Your task to perform on an android device: uninstall "McDonald's" Image 0: 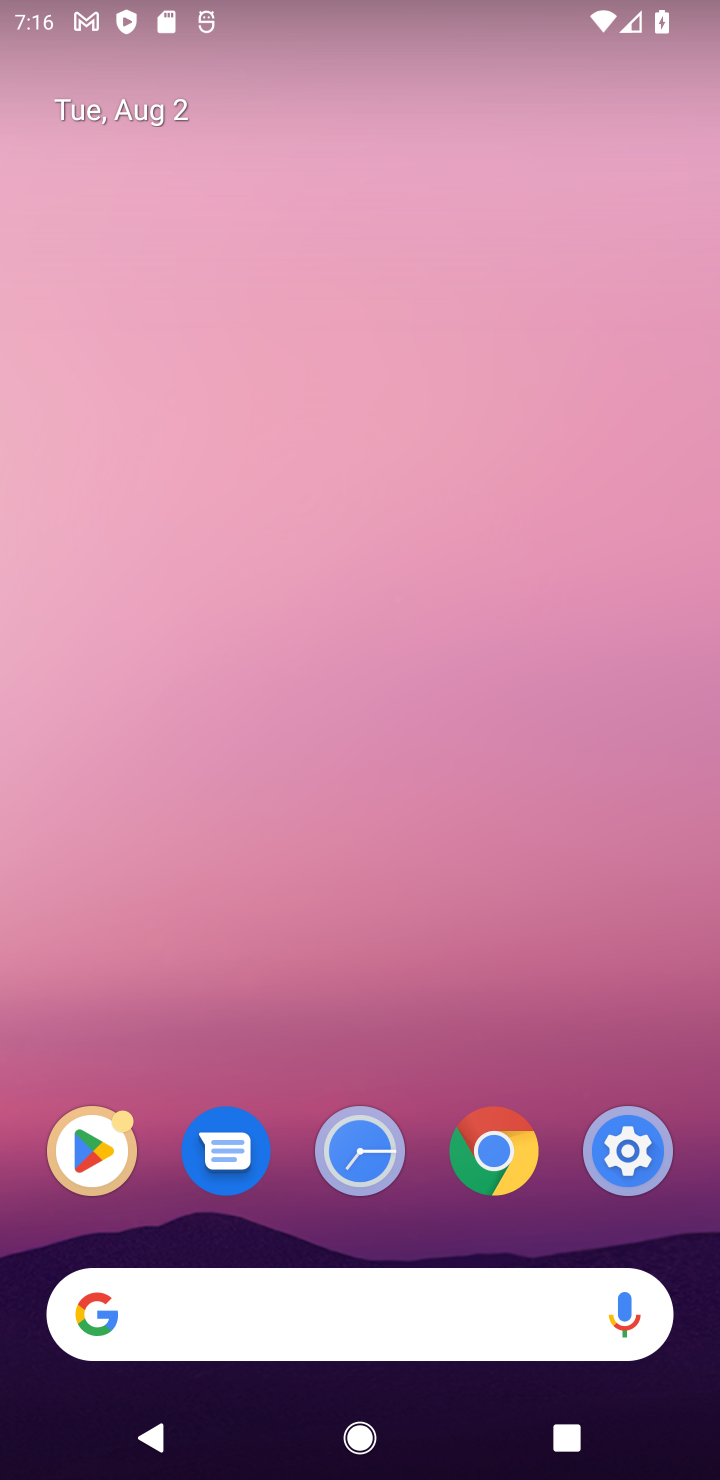
Step 0: click (108, 1145)
Your task to perform on an android device: uninstall "McDonald's" Image 1: 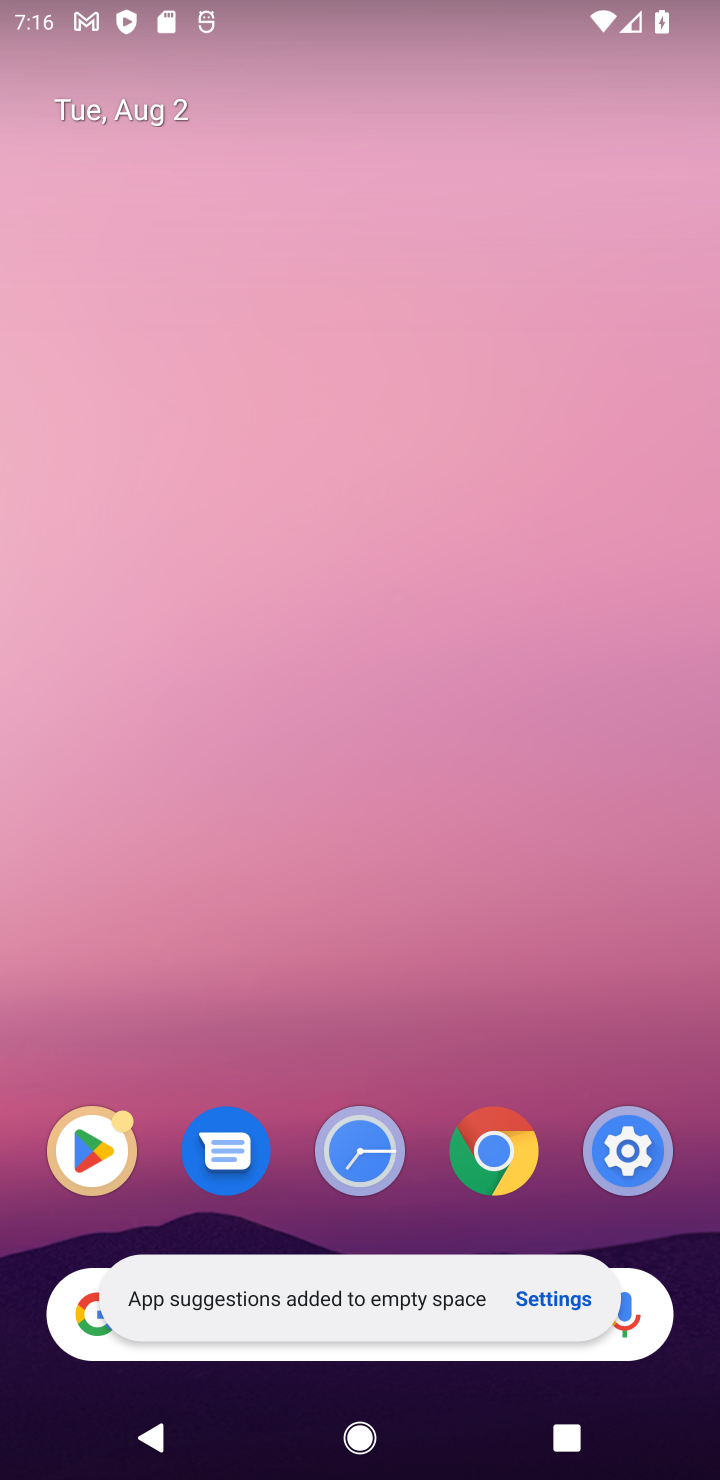
Step 1: click (82, 1149)
Your task to perform on an android device: uninstall "McDonald's" Image 2: 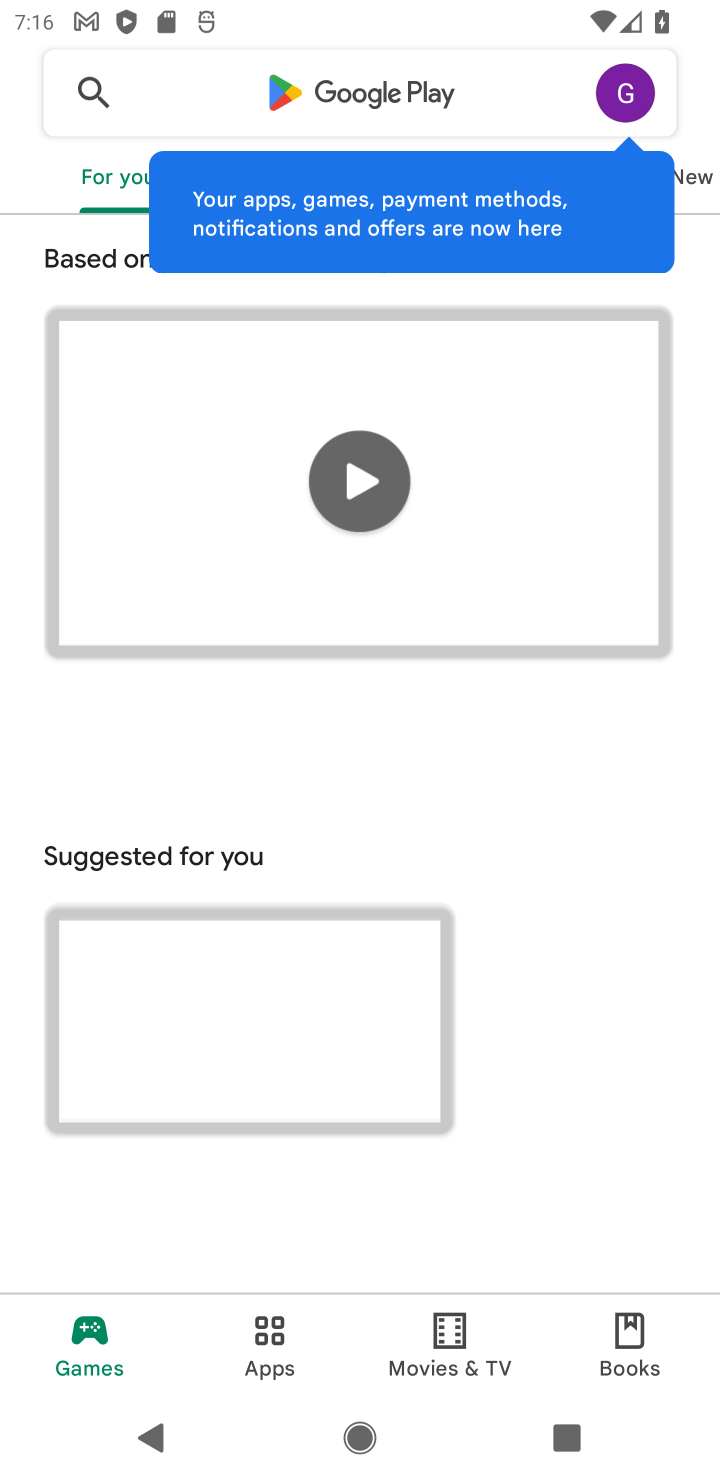
Step 2: click (391, 82)
Your task to perform on an android device: uninstall "McDonald's" Image 3: 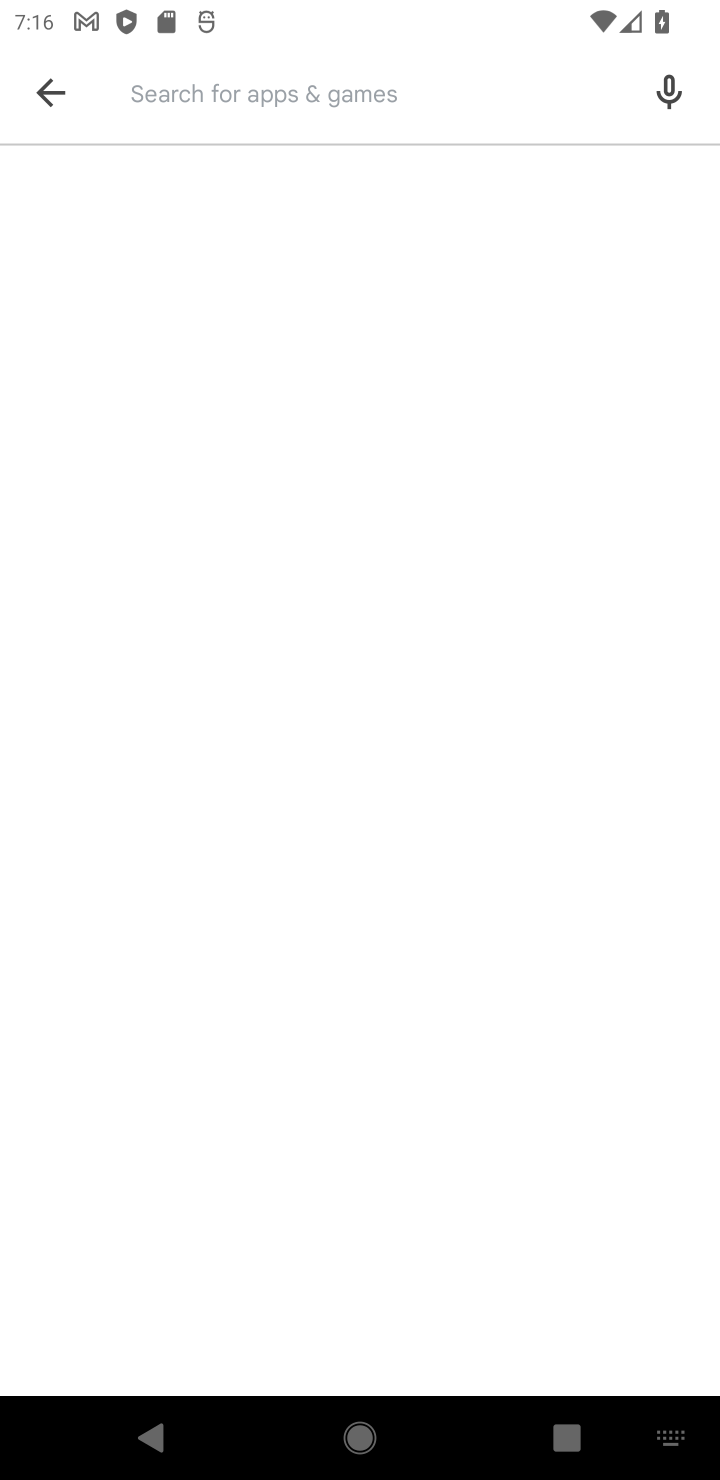
Step 3: type "McDonald's"
Your task to perform on an android device: uninstall "McDonald's" Image 4: 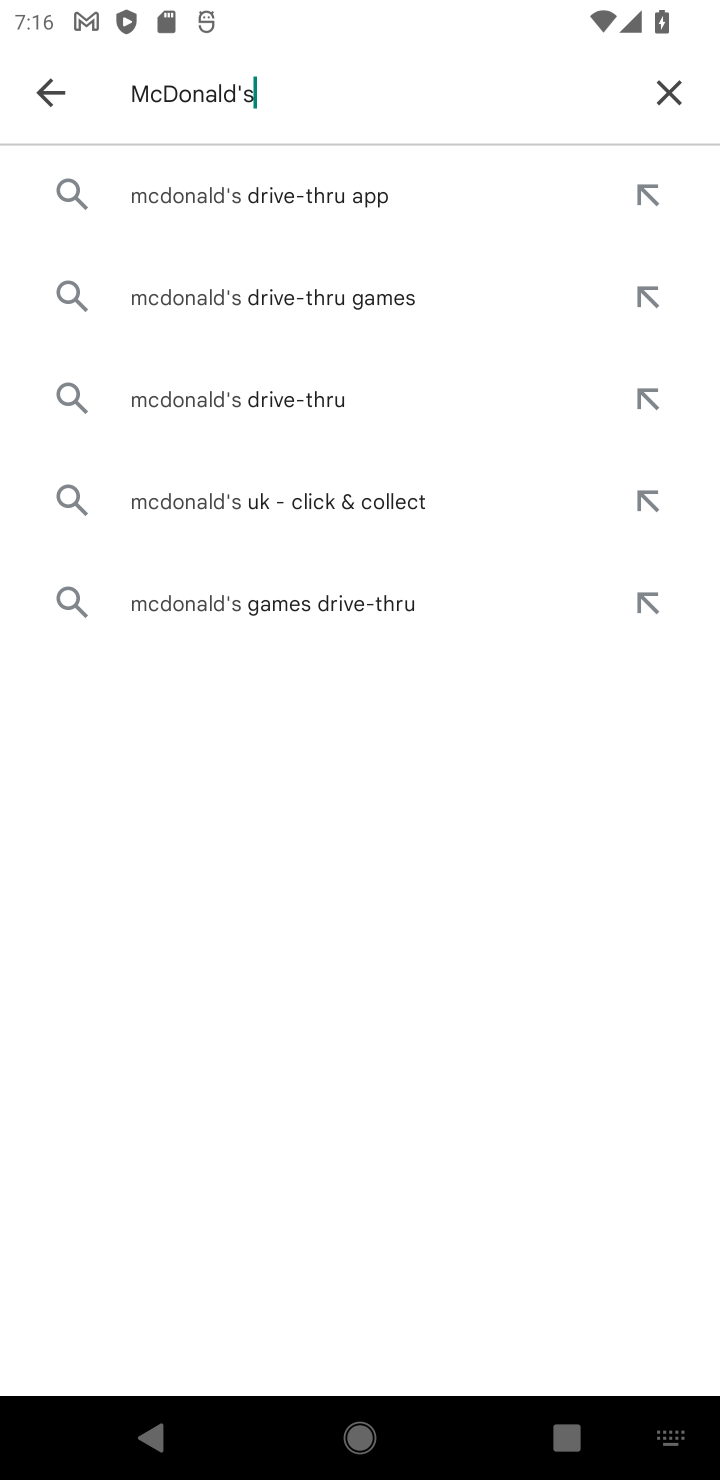
Step 4: click (350, 212)
Your task to perform on an android device: uninstall "McDonald's" Image 5: 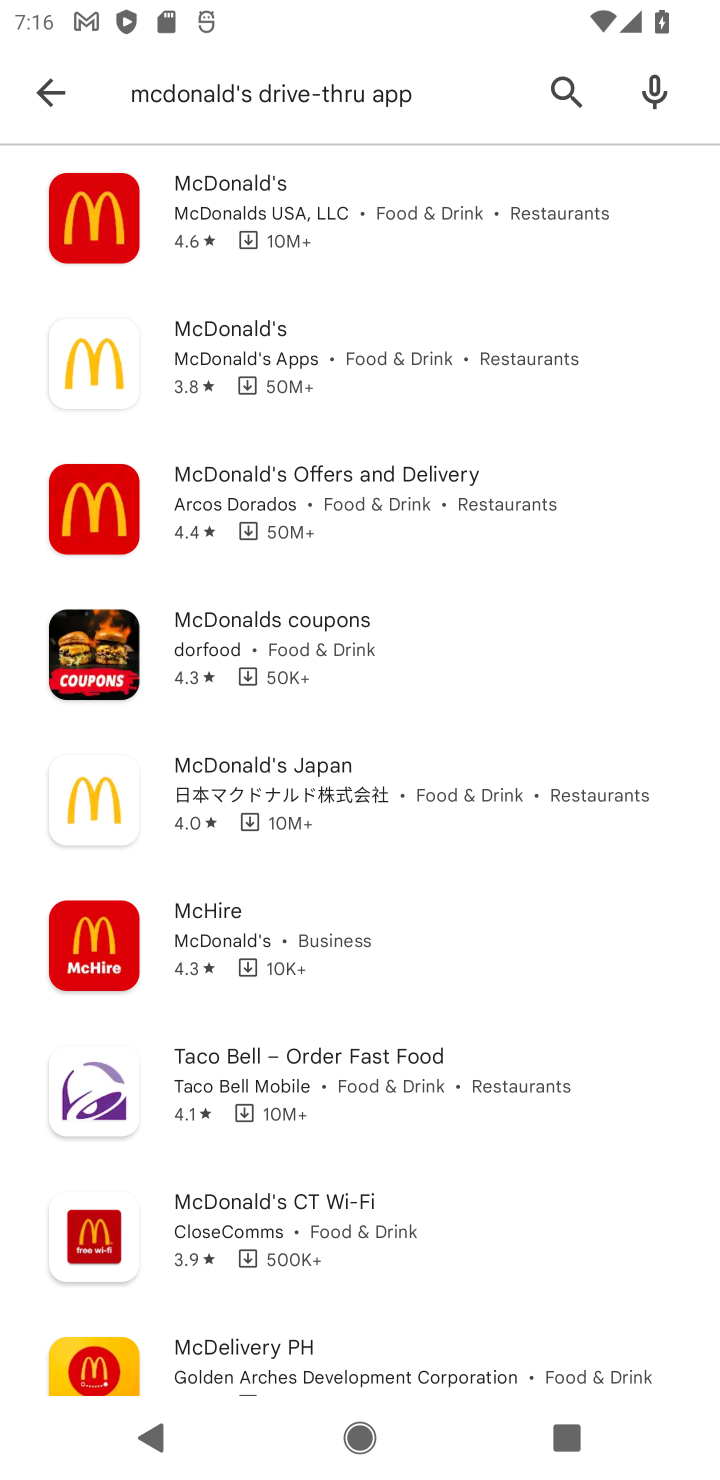
Step 5: click (350, 212)
Your task to perform on an android device: uninstall "McDonald's" Image 6: 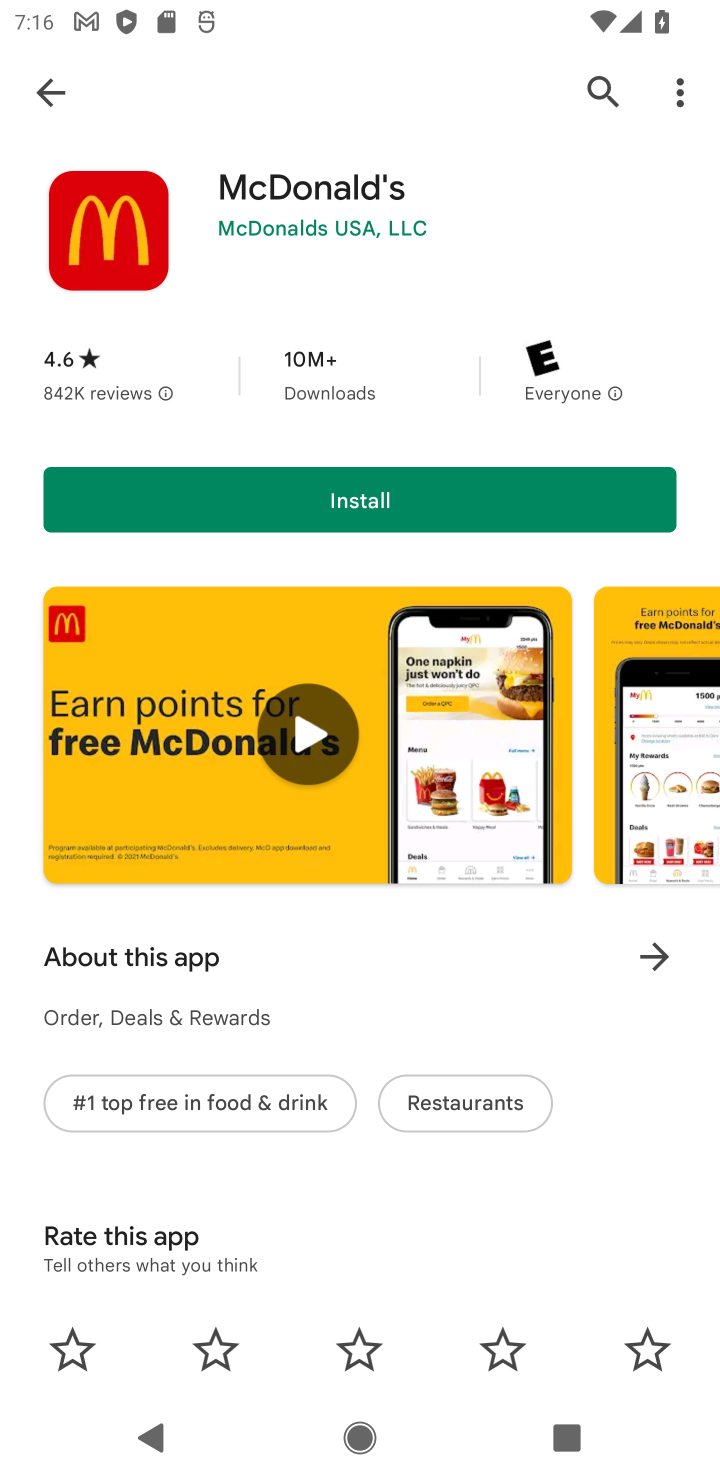
Step 6: click (353, 473)
Your task to perform on an android device: uninstall "McDonald's" Image 7: 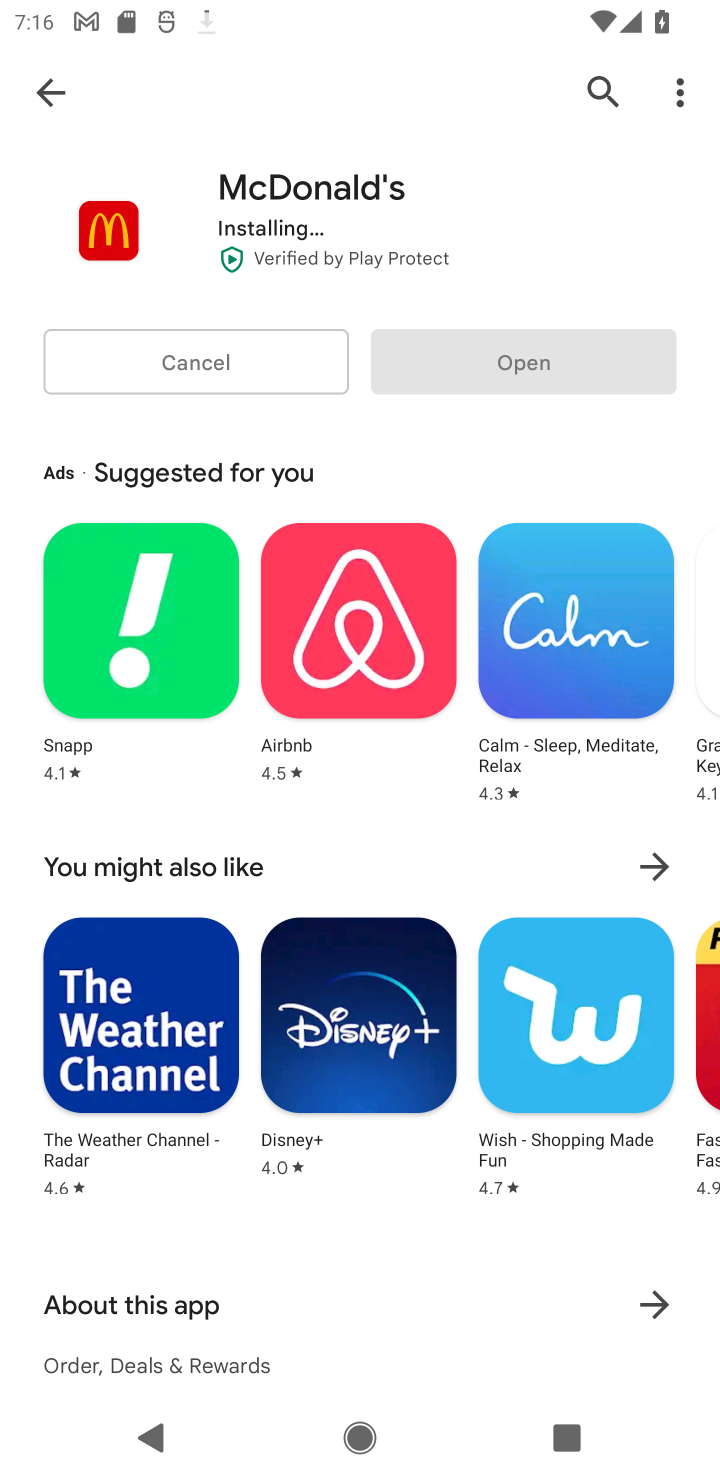
Step 7: click (115, 339)
Your task to perform on an android device: uninstall "McDonald's" Image 8: 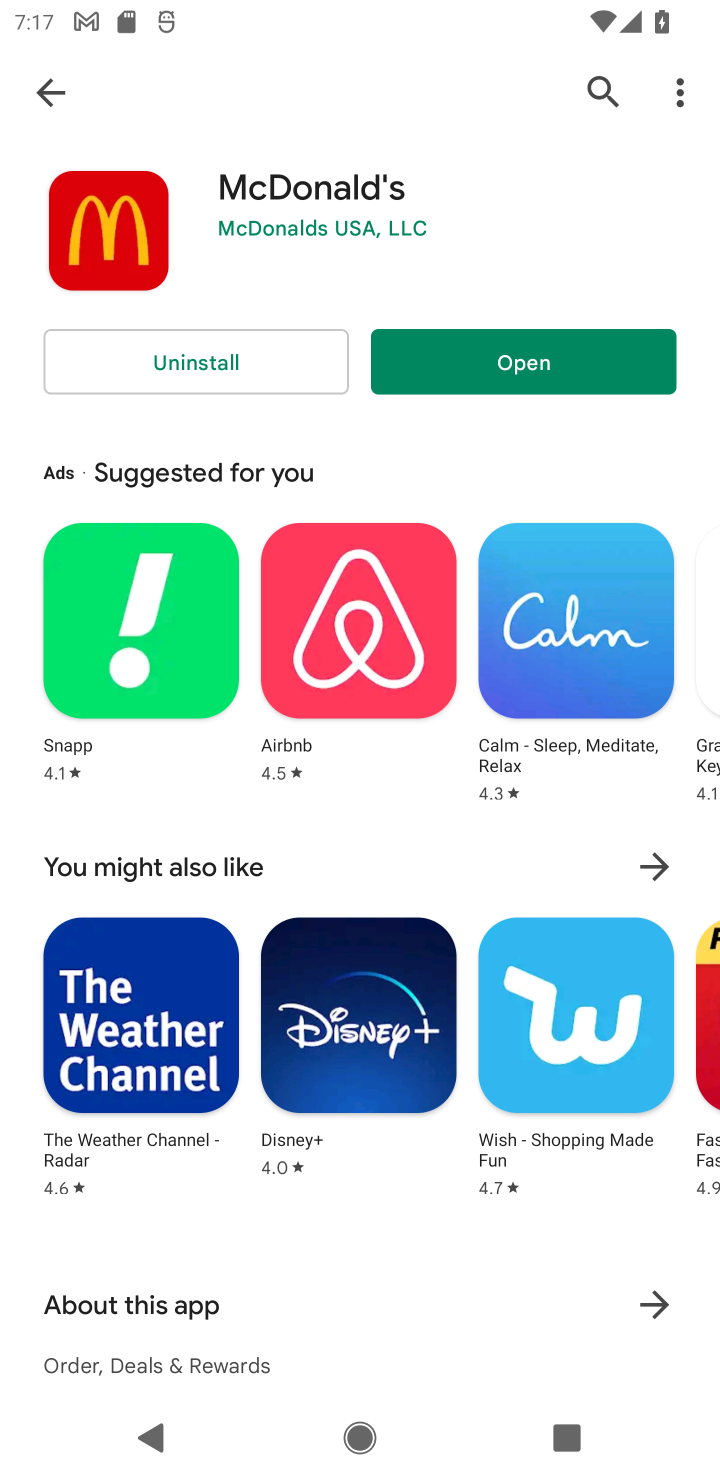
Step 8: click (120, 339)
Your task to perform on an android device: uninstall "McDonald's" Image 9: 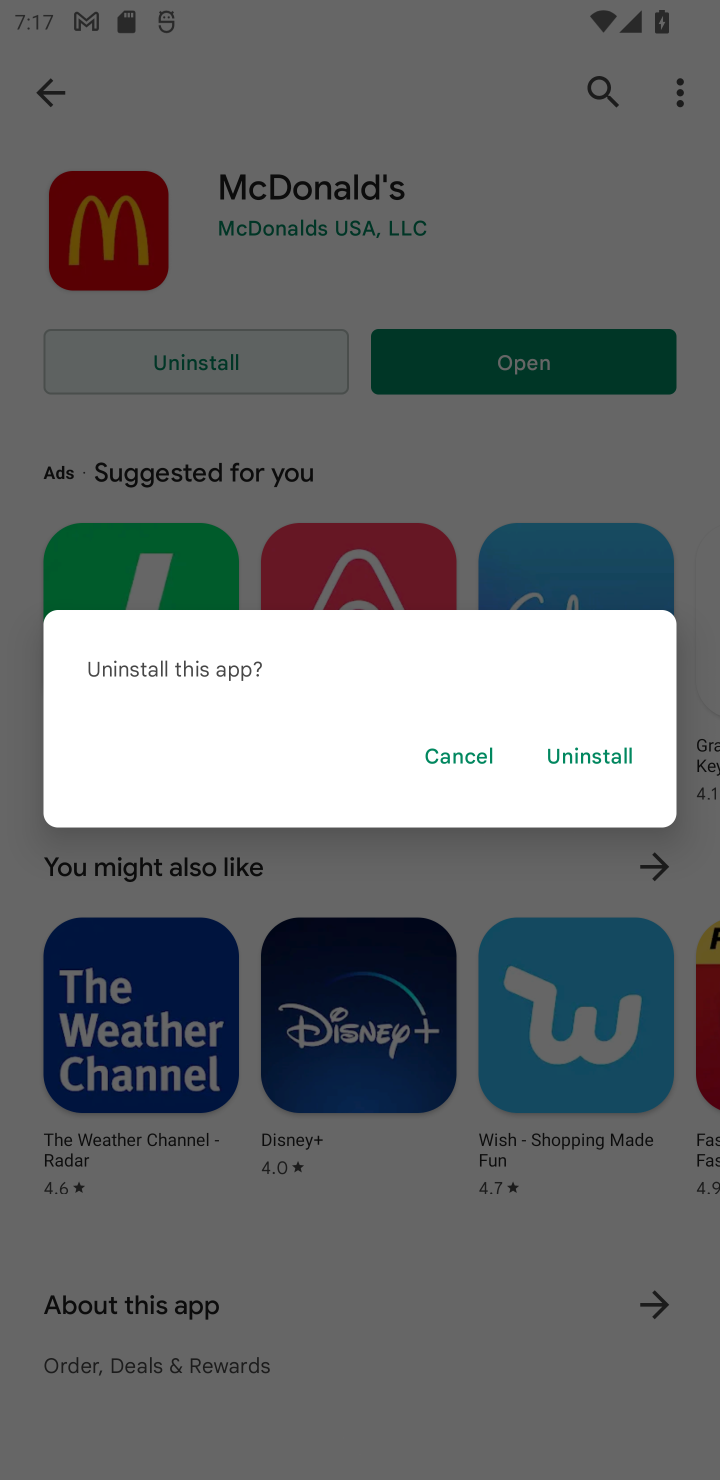
Step 9: task complete